Your task to perform on an android device: open app "Life360: Find Family & Friends" (install if not already installed) Image 0: 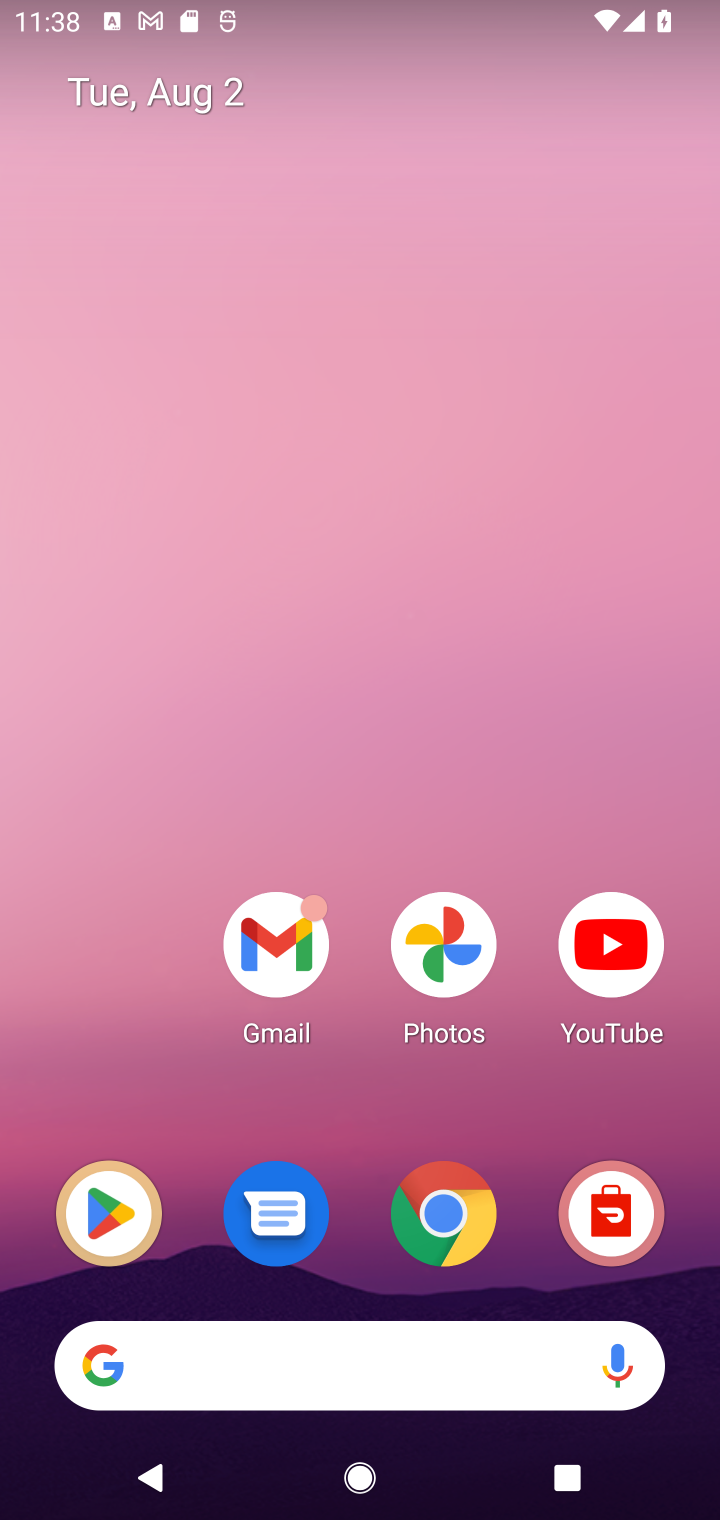
Step 0: click (96, 1219)
Your task to perform on an android device: open app "Life360: Find Family & Friends" (install if not already installed) Image 1: 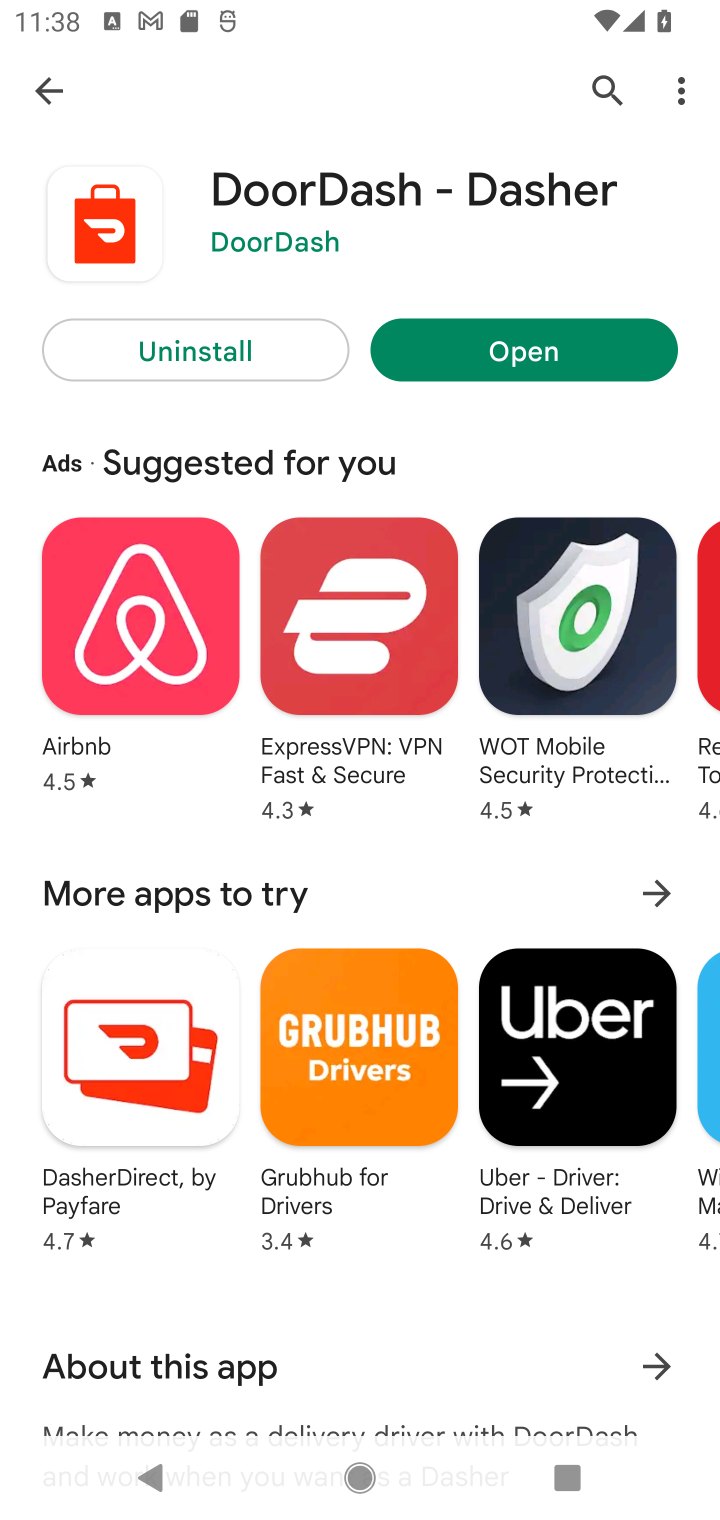
Step 1: click (45, 91)
Your task to perform on an android device: open app "Life360: Find Family & Friends" (install if not already installed) Image 2: 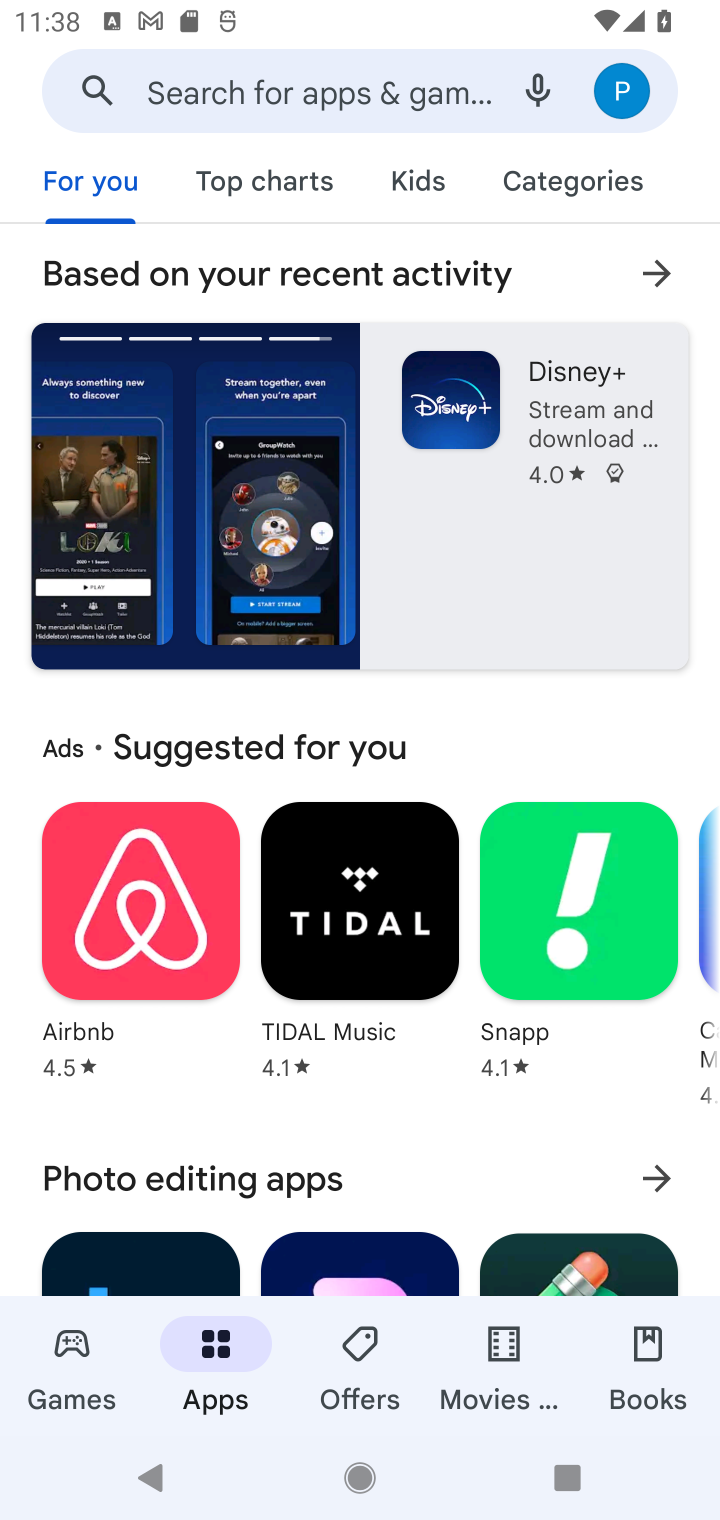
Step 2: click (228, 78)
Your task to perform on an android device: open app "Life360: Find Family & Friends" (install if not already installed) Image 3: 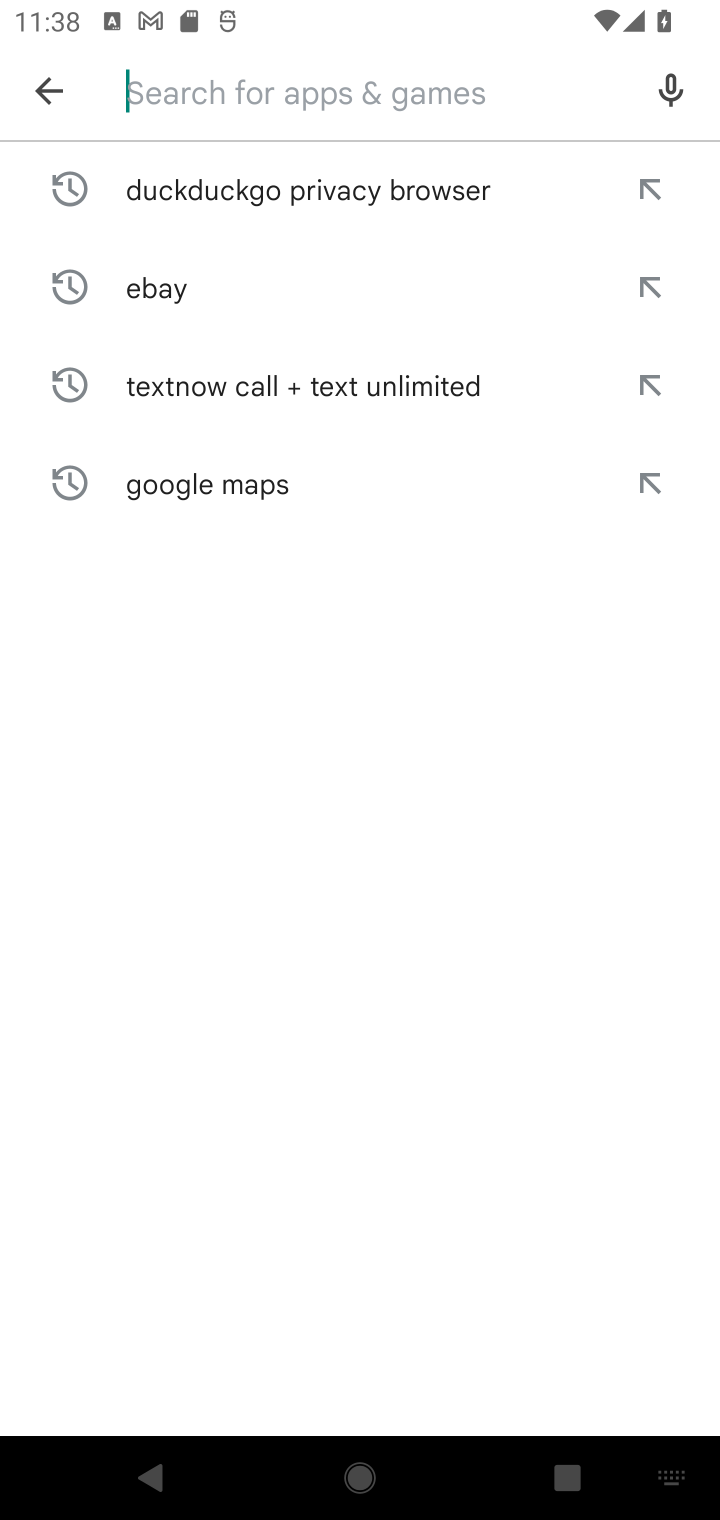
Step 3: type "Life360: Find Family & Friends"
Your task to perform on an android device: open app "Life360: Find Family & Friends" (install if not already installed) Image 4: 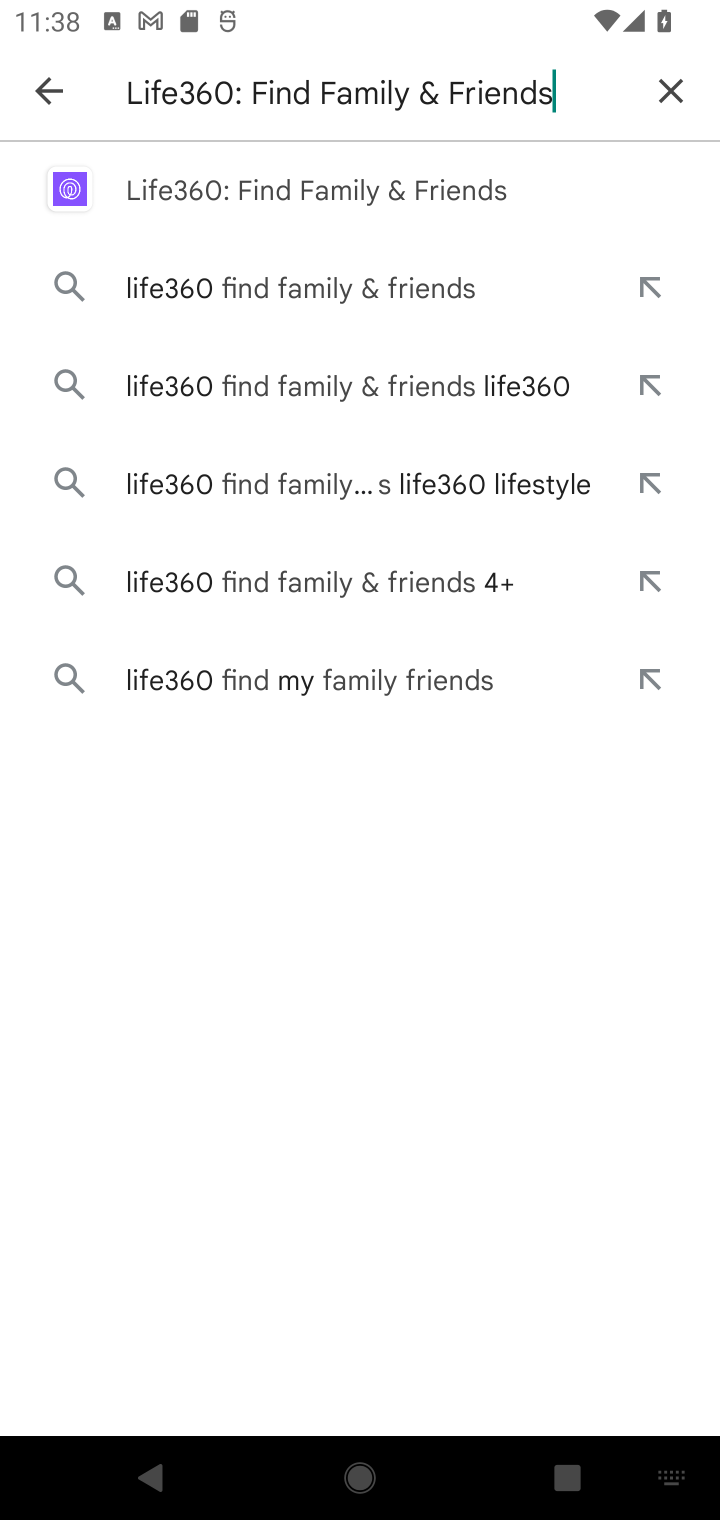
Step 4: click (322, 188)
Your task to perform on an android device: open app "Life360: Find Family & Friends" (install if not already installed) Image 5: 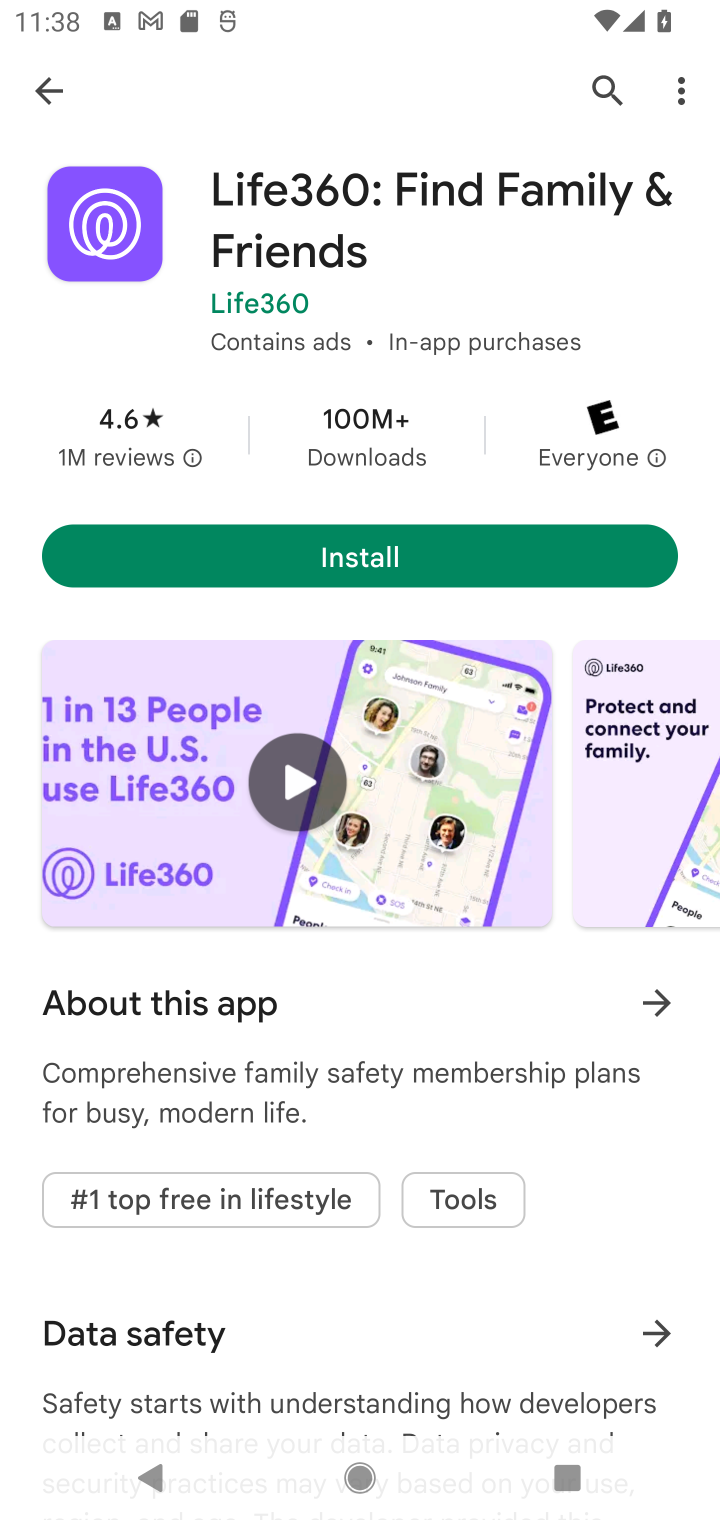
Step 5: click (346, 550)
Your task to perform on an android device: open app "Life360: Find Family & Friends" (install if not already installed) Image 6: 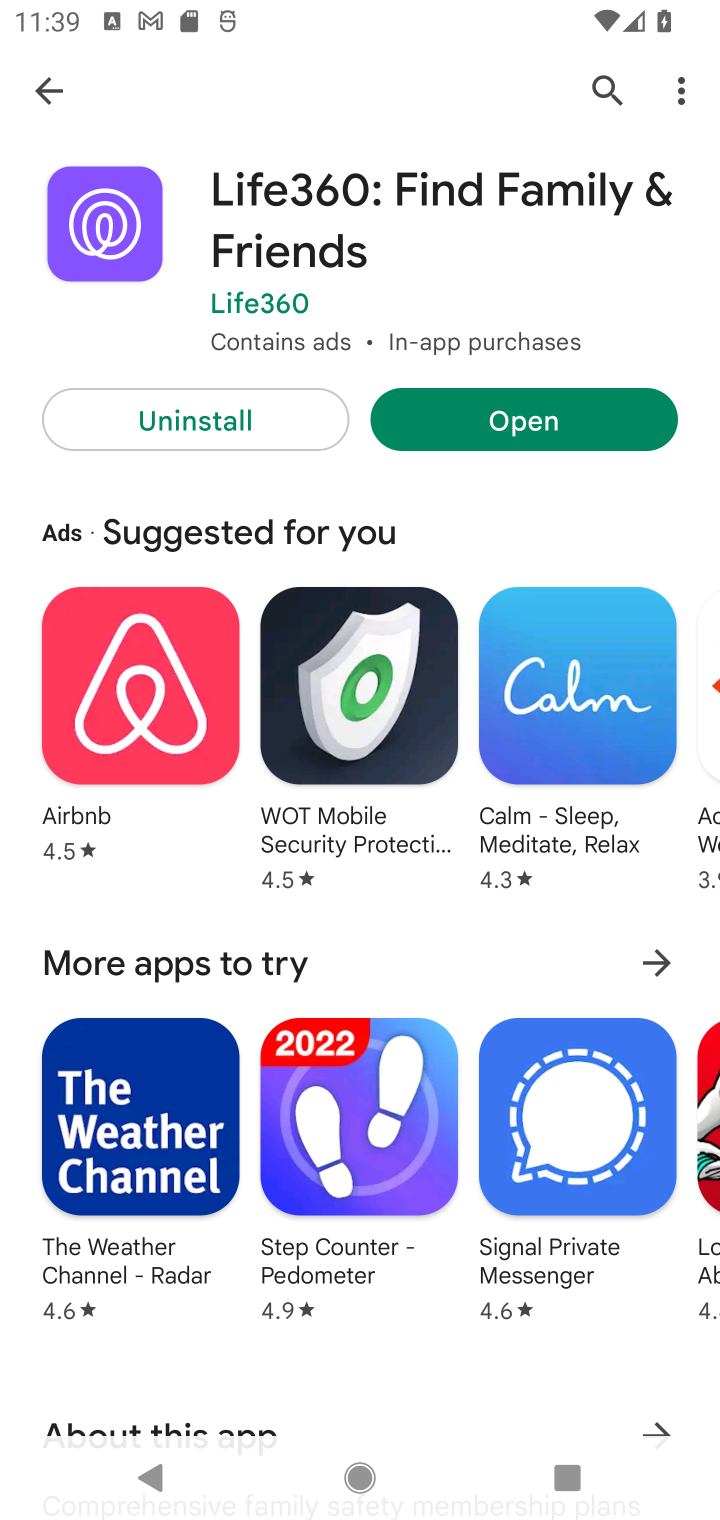
Step 6: click (530, 413)
Your task to perform on an android device: open app "Life360: Find Family & Friends" (install if not already installed) Image 7: 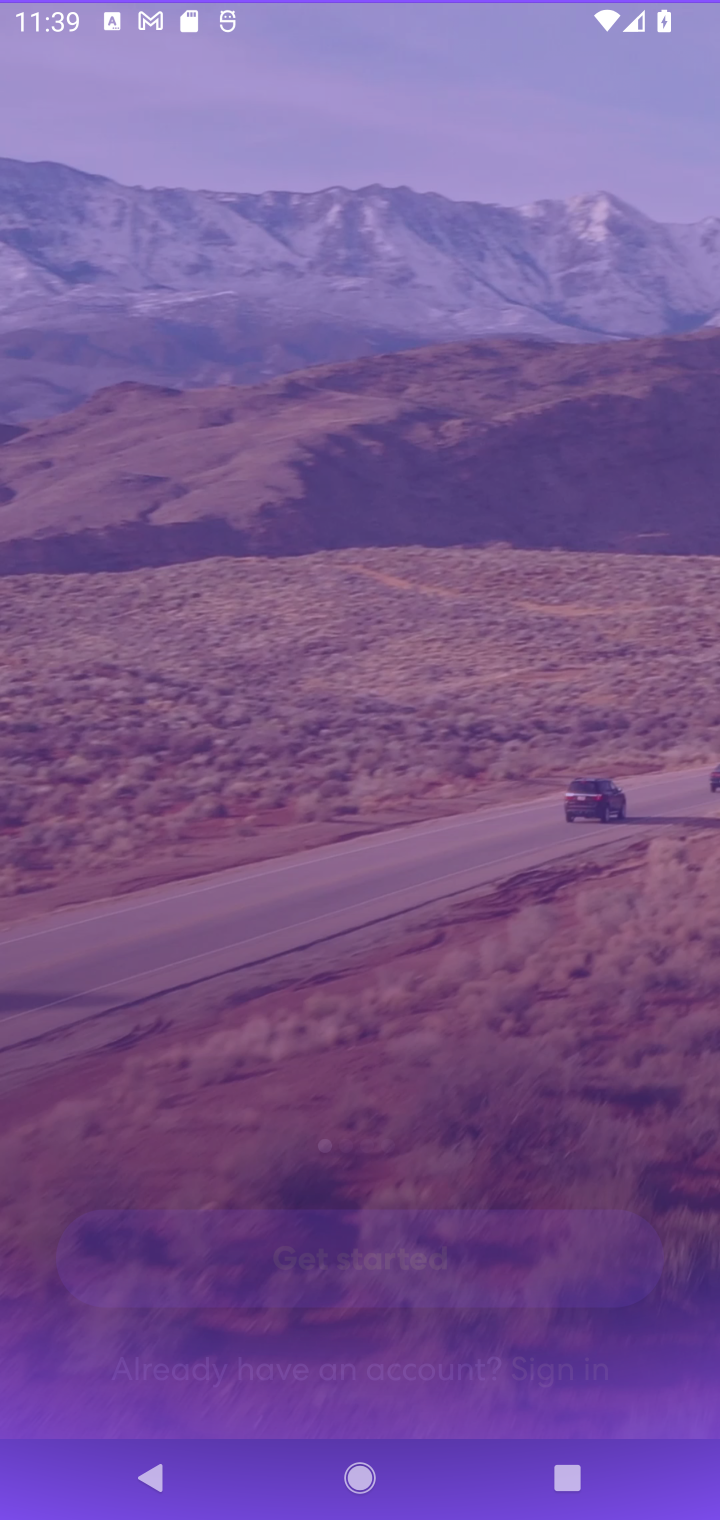
Step 7: task complete